Your task to perform on an android device: change text size in settings app Image 0: 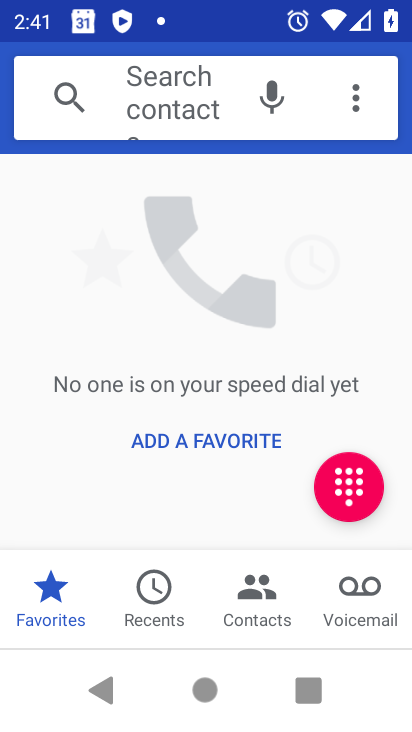
Step 0: press home button
Your task to perform on an android device: change text size in settings app Image 1: 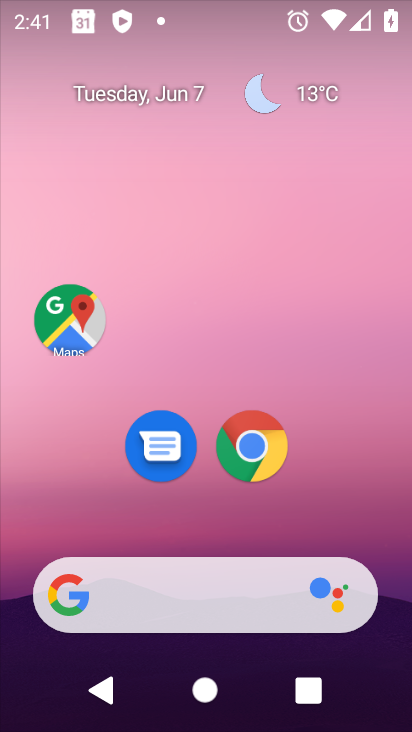
Step 1: drag from (398, 600) to (360, 138)
Your task to perform on an android device: change text size in settings app Image 2: 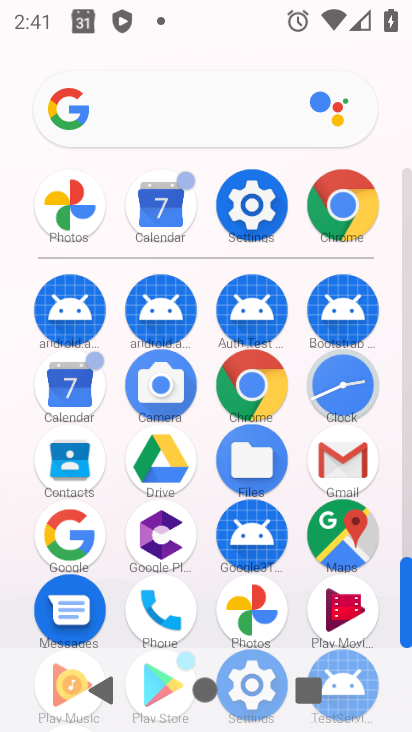
Step 2: click (409, 543)
Your task to perform on an android device: change text size in settings app Image 3: 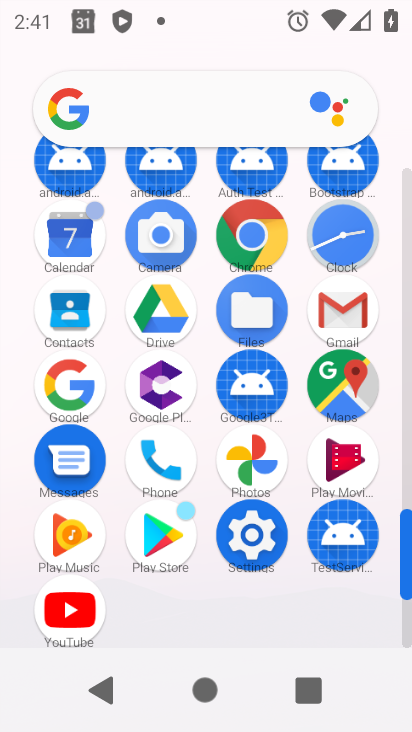
Step 3: click (252, 537)
Your task to perform on an android device: change text size in settings app Image 4: 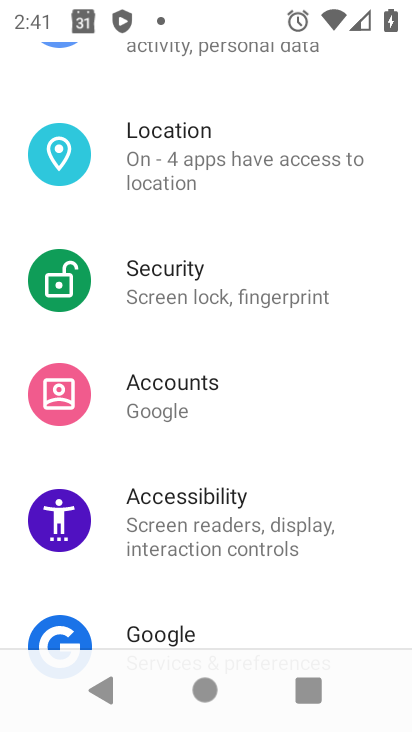
Step 4: drag from (346, 211) to (340, 478)
Your task to perform on an android device: change text size in settings app Image 5: 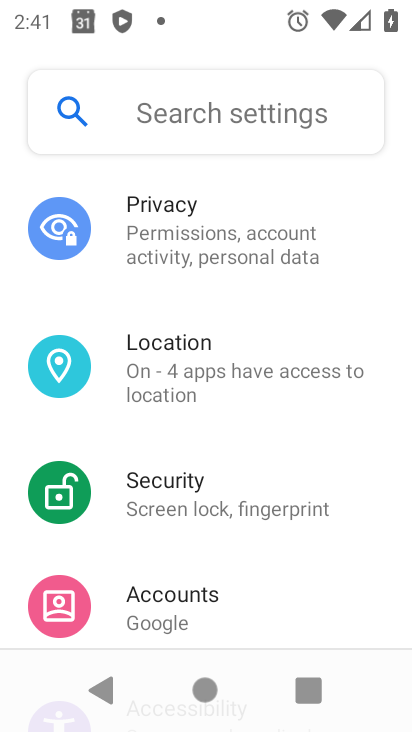
Step 5: drag from (366, 216) to (353, 525)
Your task to perform on an android device: change text size in settings app Image 6: 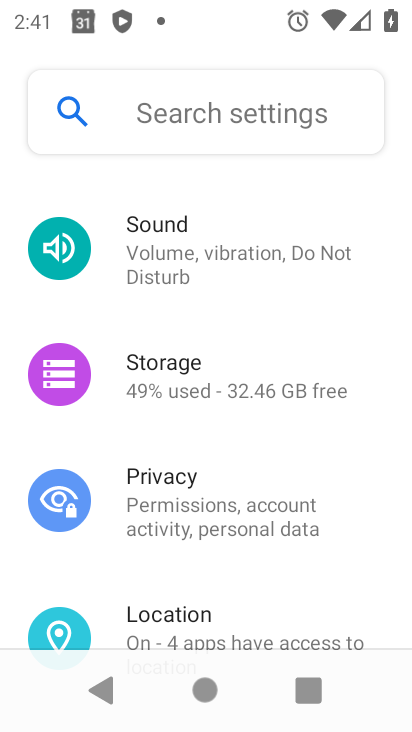
Step 6: drag from (359, 269) to (347, 547)
Your task to perform on an android device: change text size in settings app Image 7: 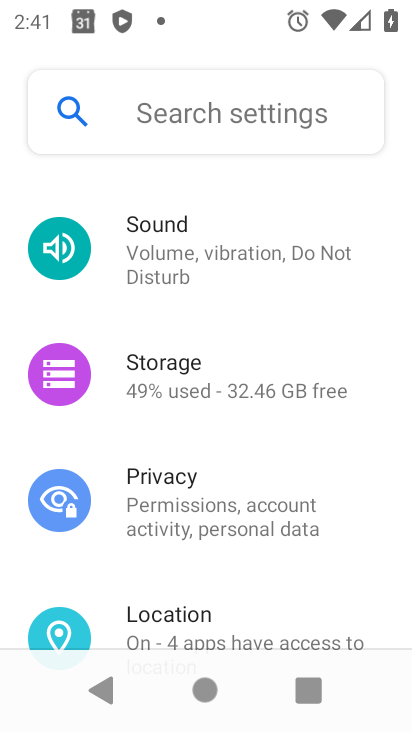
Step 7: drag from (355, 263) to (340, 518)
Your task to perform on an android device: change text size in settings app Image 8: 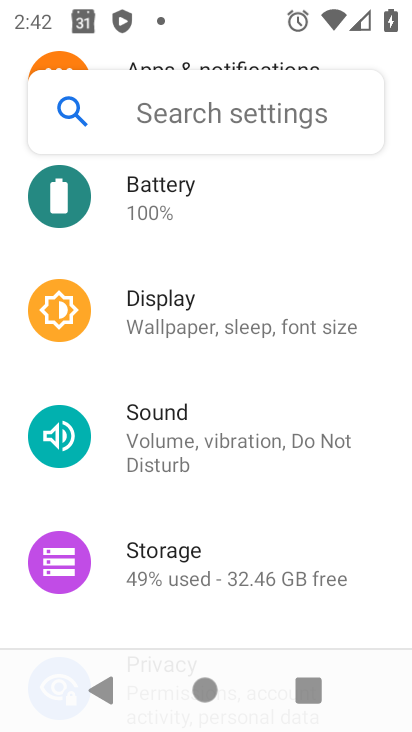
Step 8: click (195, 322)
Your task to perform on an android device: change text size in settings app Image 9: 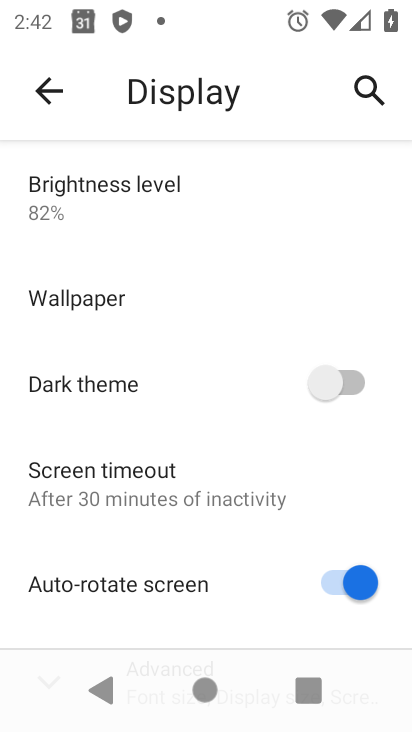
Step 9: drag from (282, 632) to (287, 246)
Your task to perform on an android device: change text size in settings app Image 10: 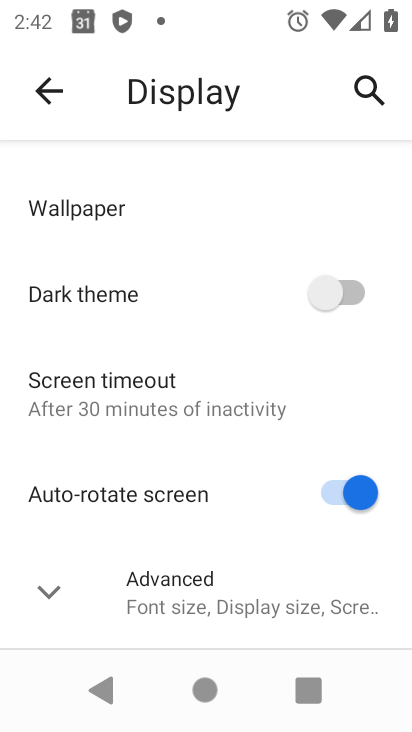
Step 10: click (52, 589)
Your task to perform on an android device: change text size in settings app Image 11: 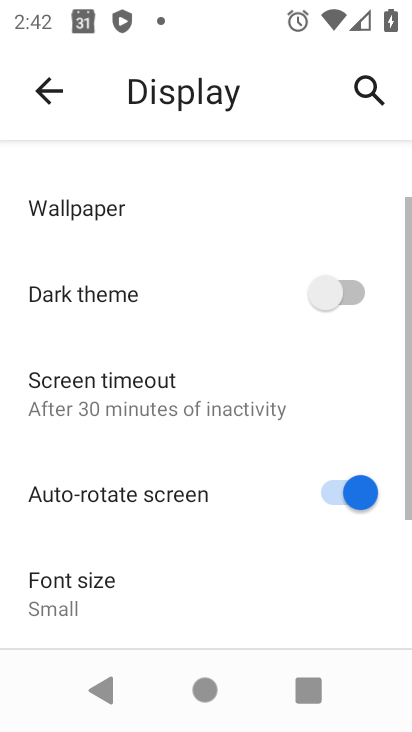
Step 11: drag from (300, 574) to (279, 244)
Your task to perform on an android device: change text size in settings app Image 12: 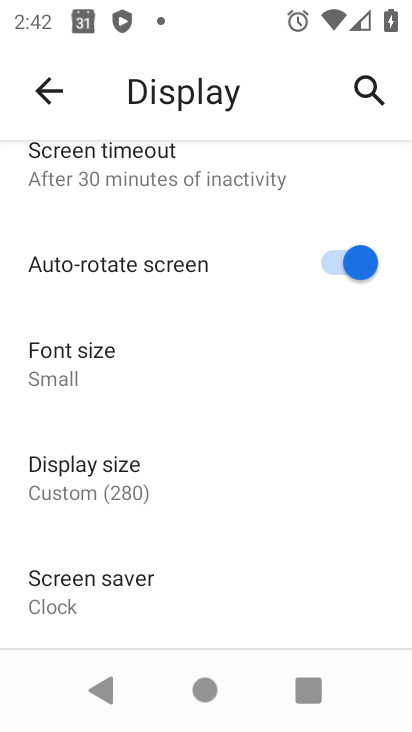
Step 12: click (18, 360)
Your task to perform on an android device: change text size in settings app Image 13: 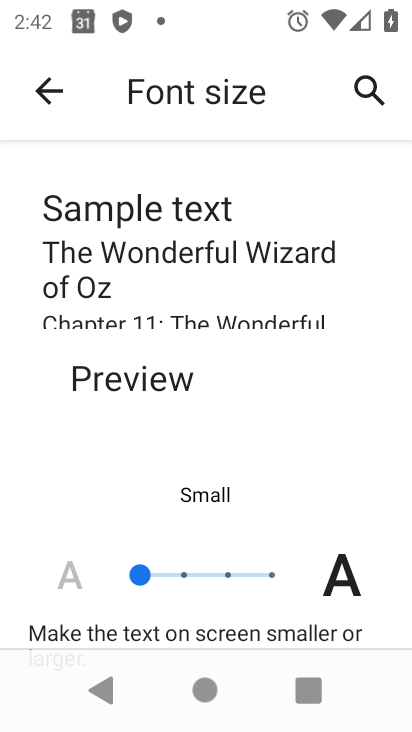
Step 13: click (183, 576)
Your task to perform on an android device: change text size in settings app Image 14: 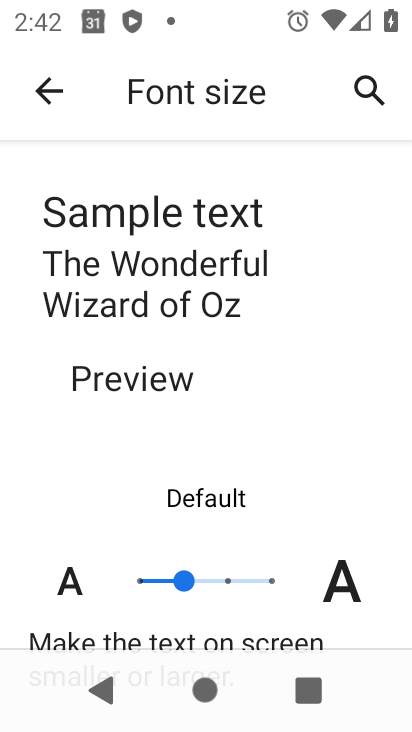
Step 14: task complete